Your task to perform on an android device: Open Google Image 0: 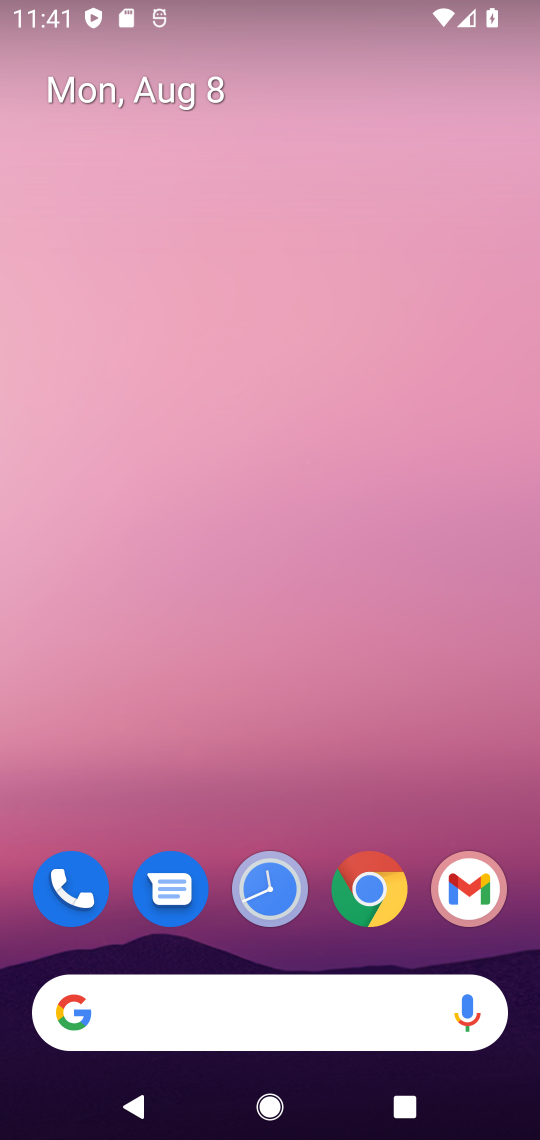
Step 0: drag from (315, 825) to (267, 247)
Your task to perform on an android device: Open Google Image 1: 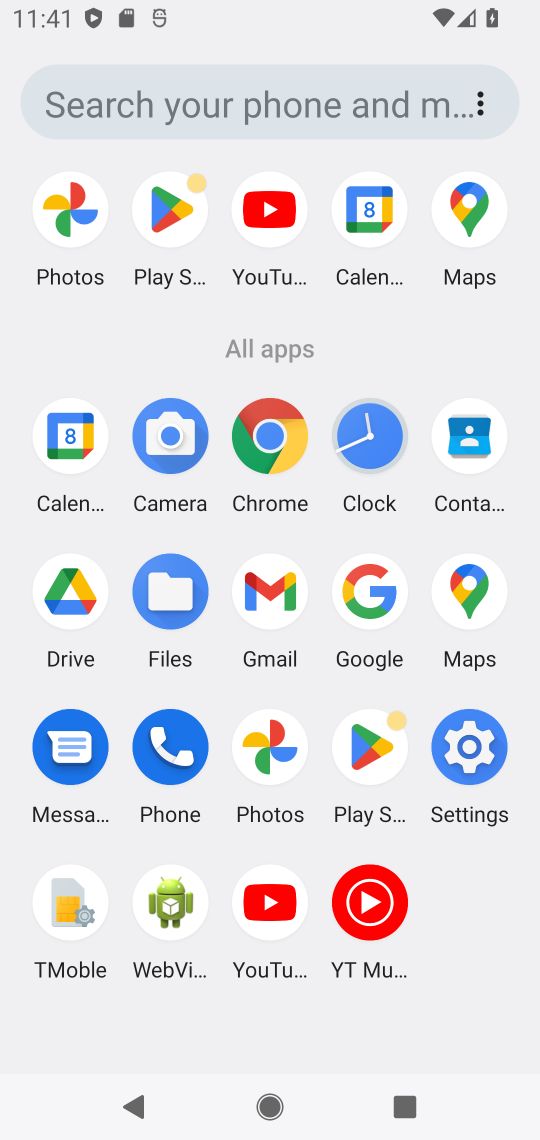
Step 1: click (368, 580)
Your task to perform on an android device: Open Google Image 2: 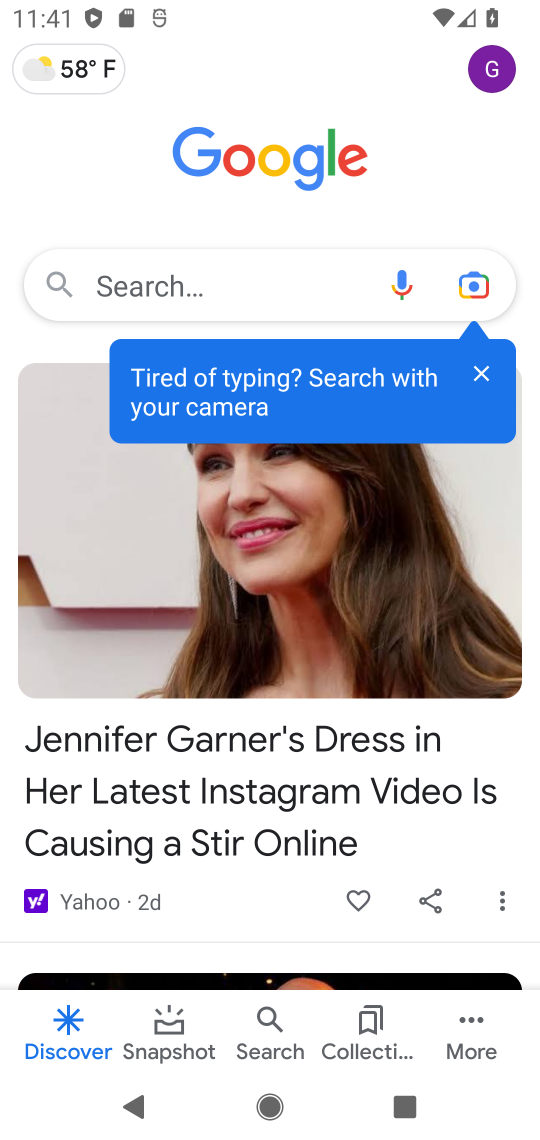
Step 2: click (487, 381)
Your task to perform on an android device: Open Google Image 3: 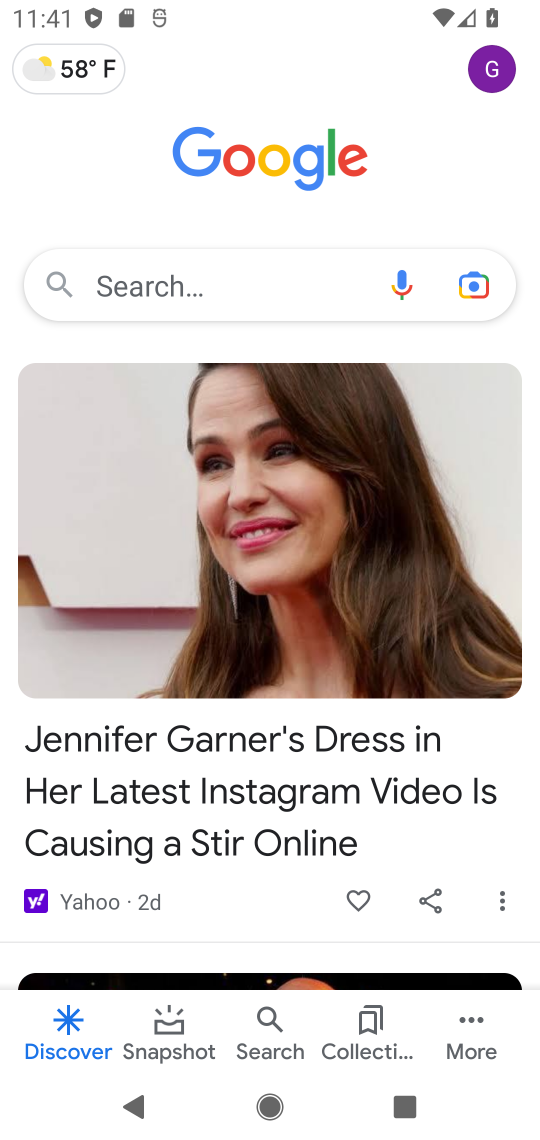
Step 3: task complete